Your task to perform on an android device: Do I have any events tomorrow? Image 0: 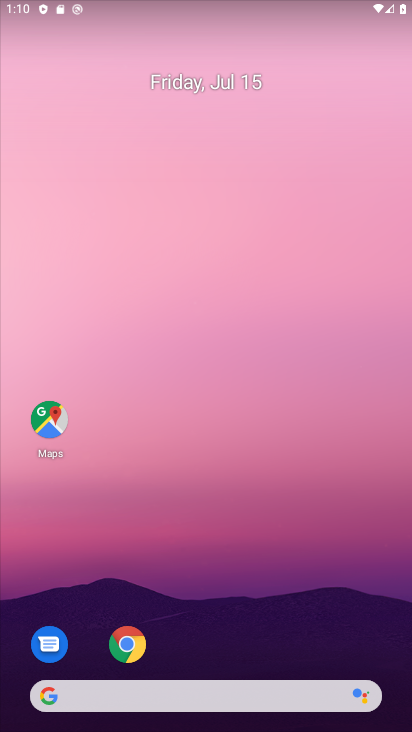
Step 0: drag from (362, 478) to (322, 103)
Your task to perform on an android device: Do I have any events tomorrow? Image 1: 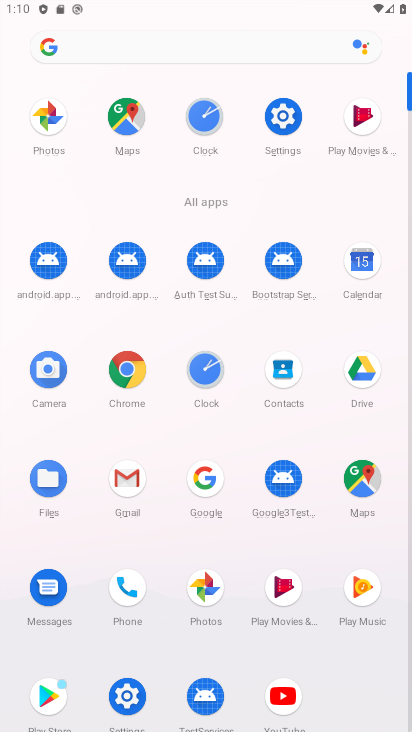
Step 1: click (372, 264)
Your task to perform on an android device: Do I have any events tomorrow? Image 2: 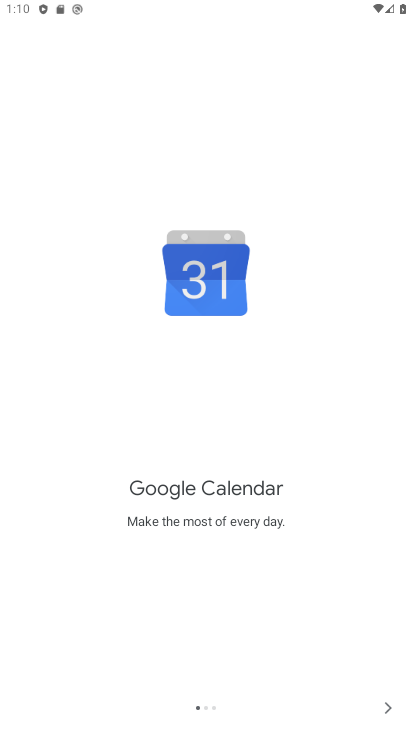
Step 2: click (390, 701)
Your task to perform on an android device: Do I have any events tomorrow? Image 3: 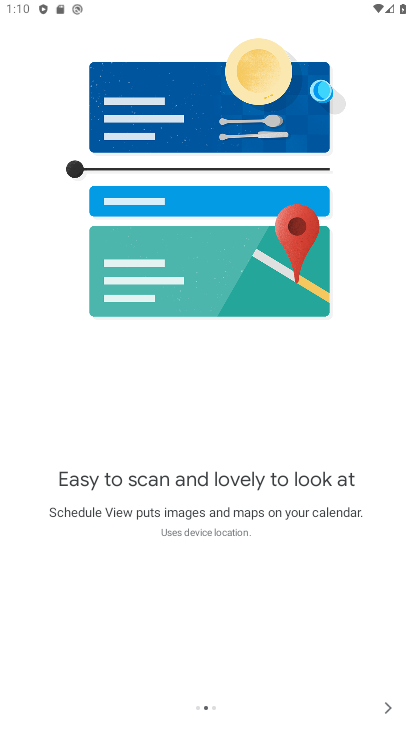
Step 3: click (391, 701)
Your task to perform on an android device: Do I have any events tomorrow? Image 4: 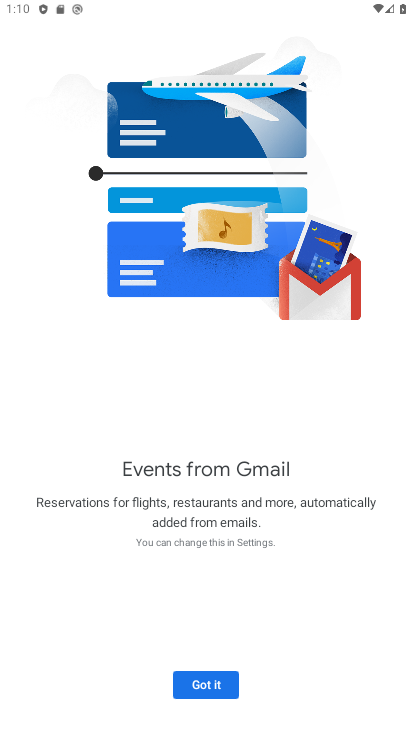
Step 4: click (208, 677)
Your task to perform on an android device: Do I have any events tomorrow? Image 5: 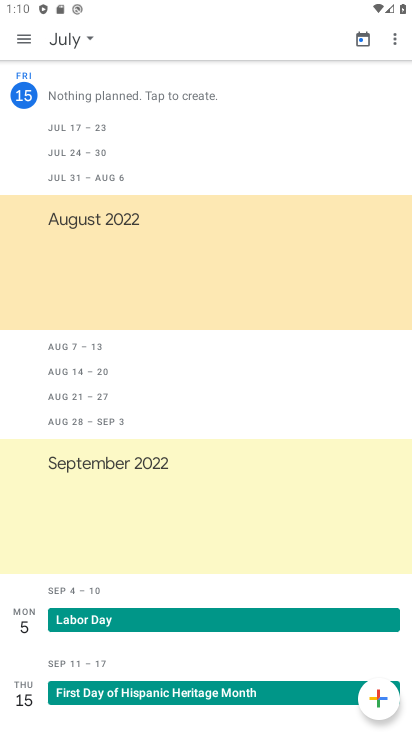
Step 5: click (87, 35)
Your task to perform on an android device: Do I have any events tomorrow? Image 6: 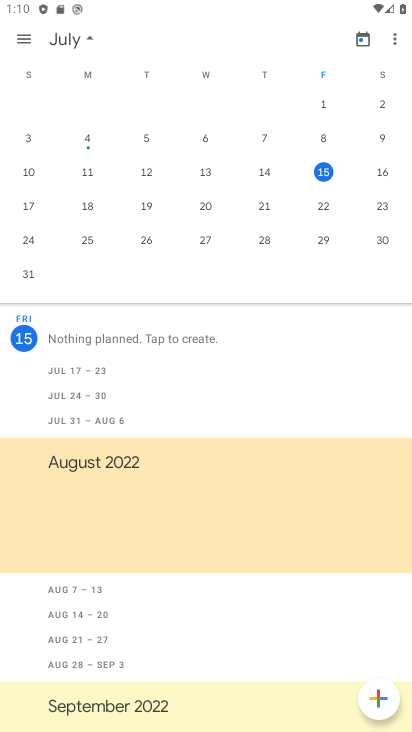
Step 6: click (375, 171)
Your task to perform on an android device: Do I have any events tomorrow? Image 7: 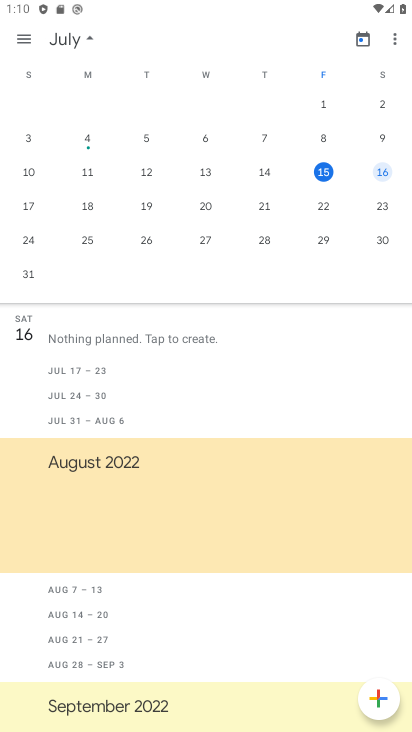
Step 7: click (26, 39)
Your task to perform on an android device: Do I have any events tomorrow? Image 8: 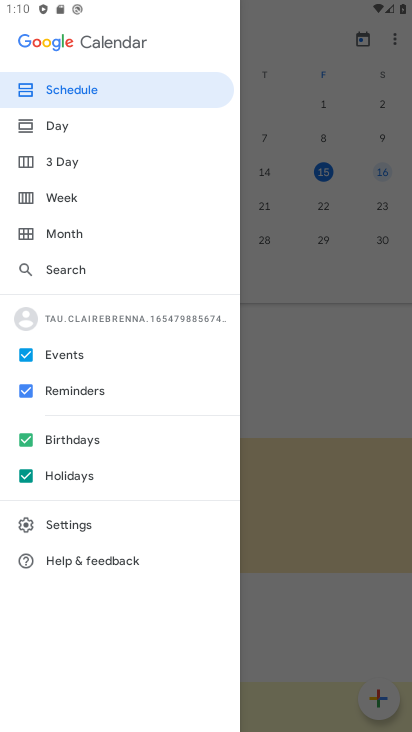
Step 8: click (62, 347)
Your task to perform on an android device: Do I have any events tomorrow? Image 9: 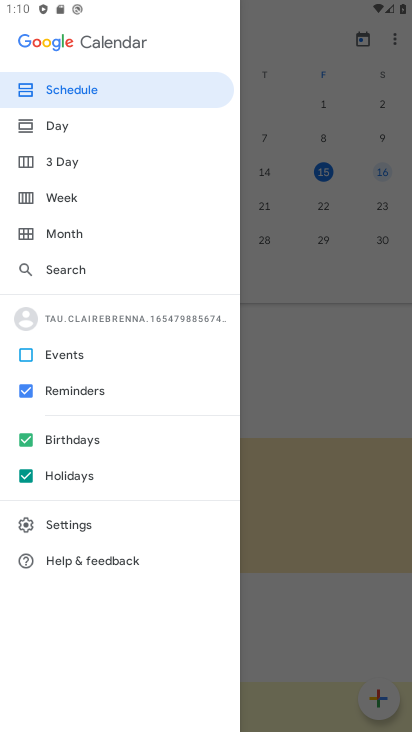
Step 9: click (62, 347)
Your task to perform on an android device: Do I have any events tomorrow? Image 10: 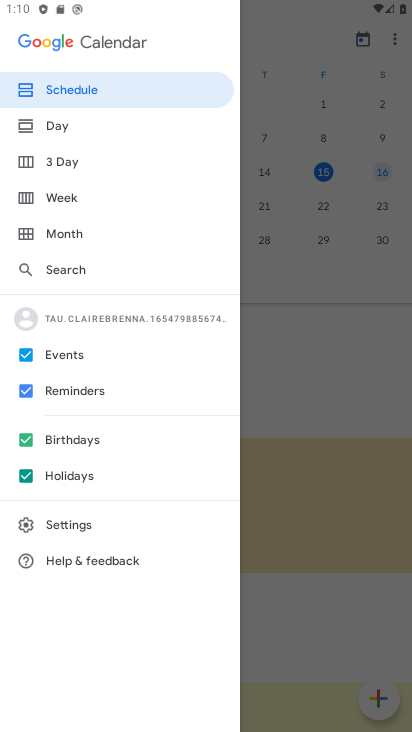
Step 10: click (31, 477)
Your task to perform on an android device: Do I have any events tomorrow? Image 11: 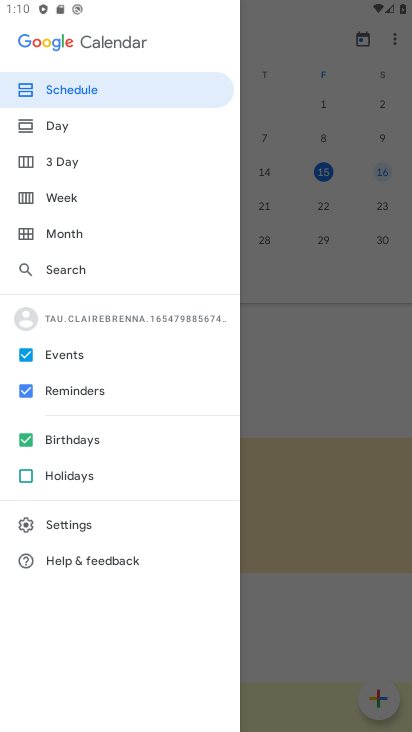
Step 11: click (30, 439)
Your task to perform on an android device: Do I have any events tomorrow? Image 12: 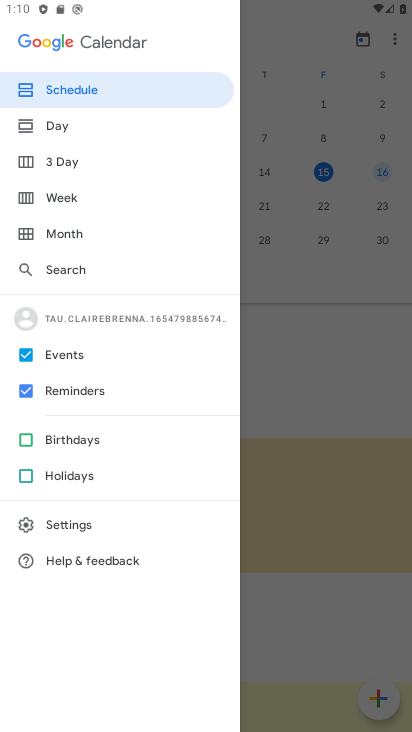
Step 12: click (30, 393)
Your task to perform on an android device: Do I have any events tomorrow? Image 13: 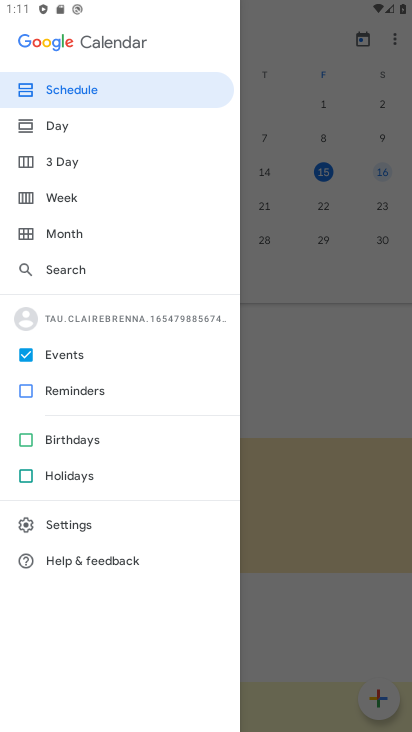
Step 13: click (66, 128)
Your task to perform on an android device: Do I have any events tomorrow? Image 14: 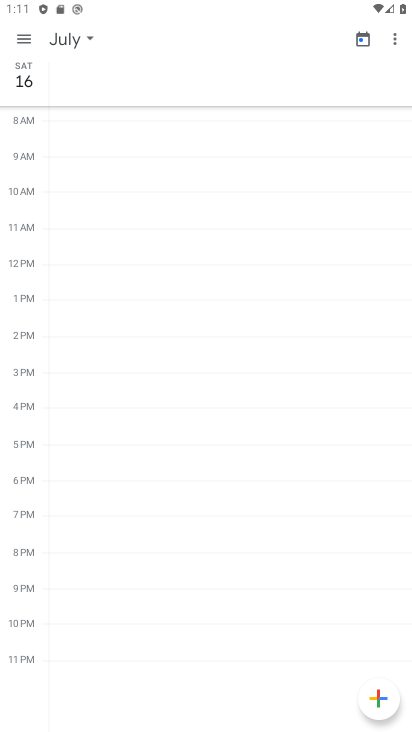
Step 14: click (20, 39)
Your task to perform on an android device: Do I have any events tomorrow? Image 15: 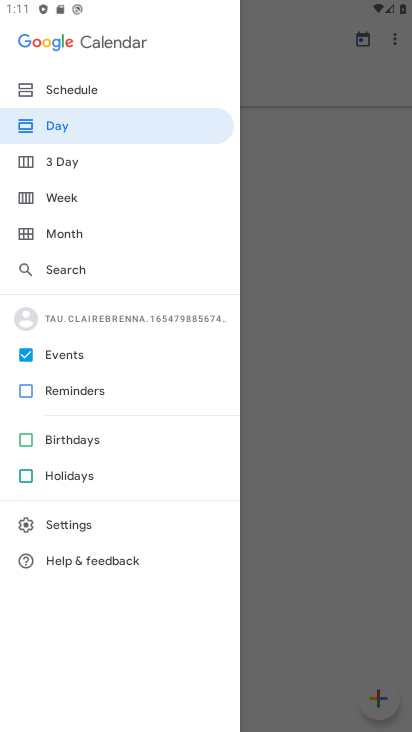
Step 15: click (50, 90)
Your task to perform on an android device: Do I have any events tomorrow? Image 16: 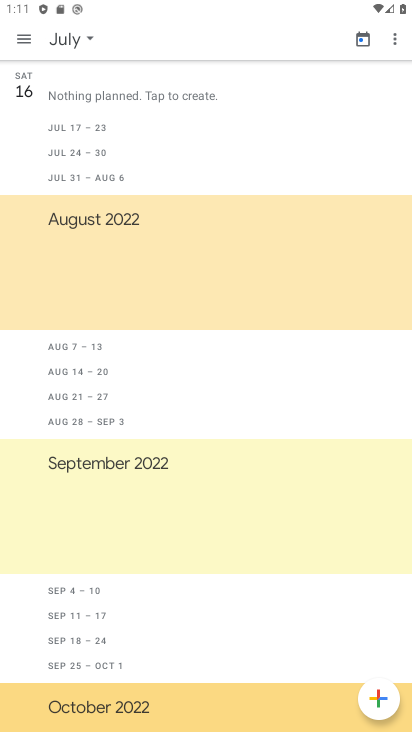
Step 16: task complete